Your task to perform on an android device: What is the news today? Image 0: 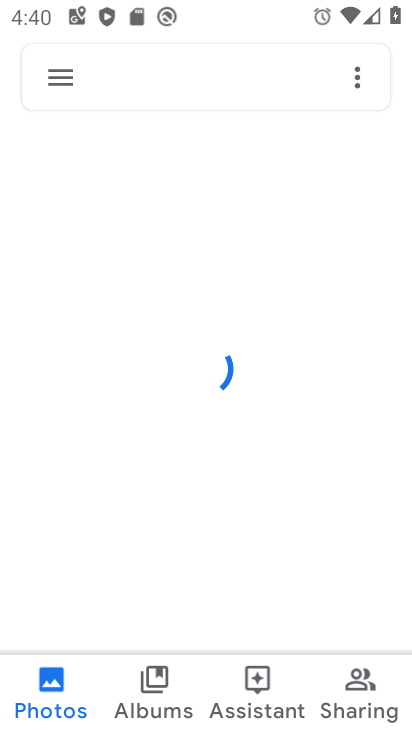
Step 0: press home button
Your task to perform on an android device: What is the news today? Image 1: 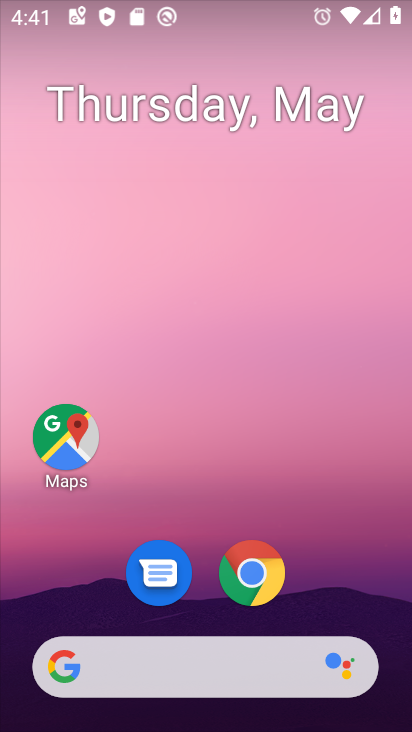
Step 1: click (325, 241)
Your task to perform on an android device: What is the news today? Image 2: 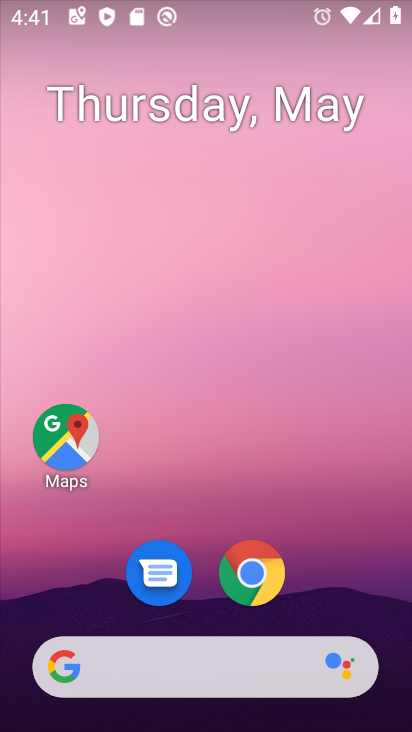
Step 2: click (188, 669)
Your task to perform on an android device: What is the news today? Image 3: 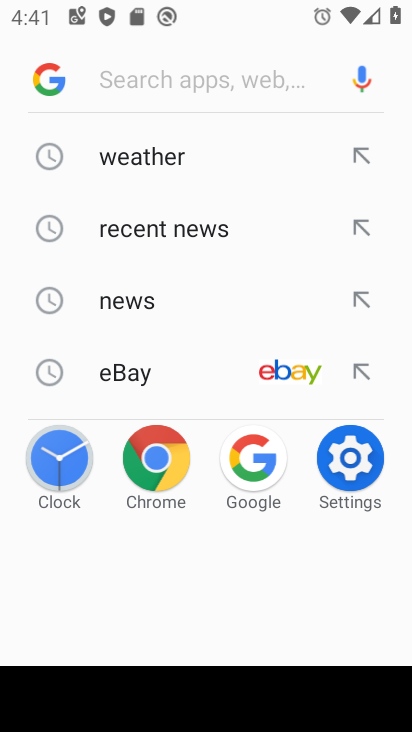
Step 3: click (138, 302)
Your task to perform on an android device: What is the news today? Image 4: 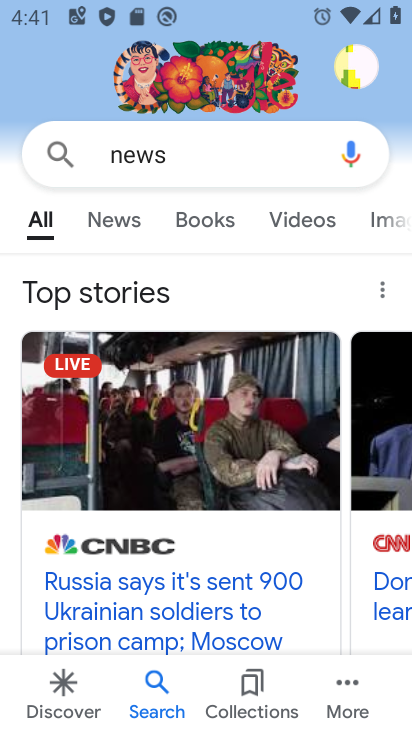
Step 4: task complete